Your task to perform on an android device: set the timer Image 0: 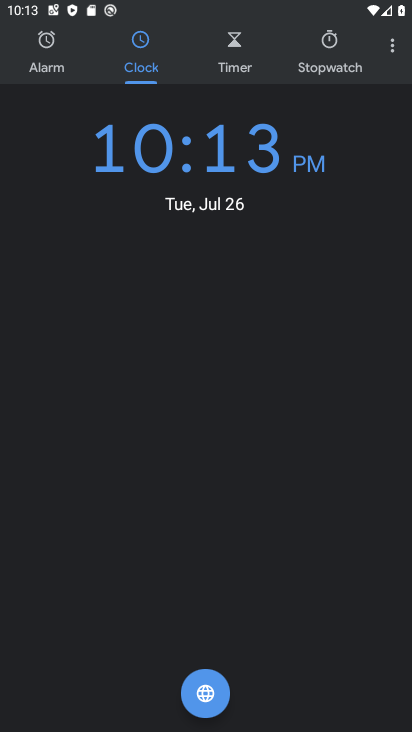
Step 0: press home button
Your task to perform on an android device: set the timer Image 1: 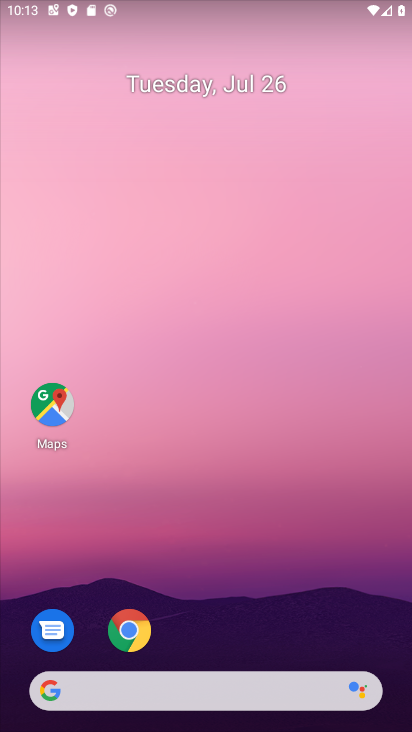
Step 1: drag from (154, 468) to (118, 109)
Your task to perform on an android device: set the timer Image 2: 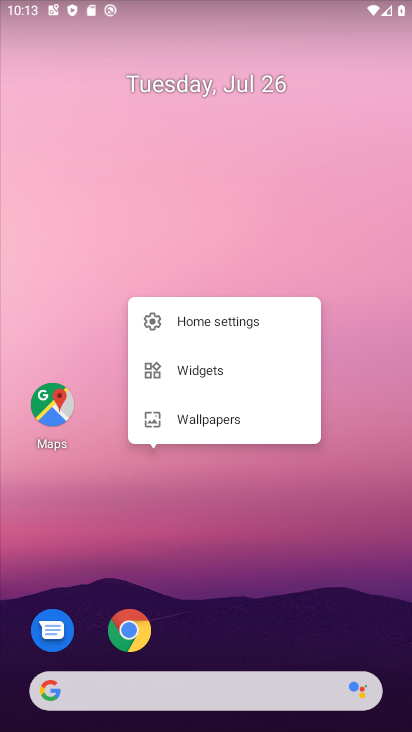
Step 2: drag from (200, 642) to (159, 51)
Your task to perform on an android device: set the timer Image 3: 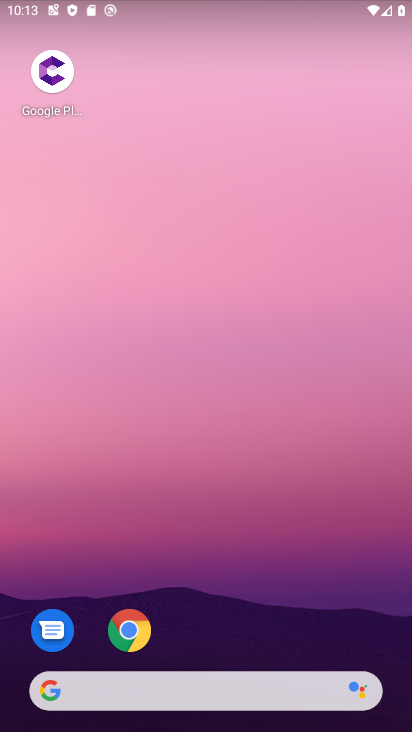
Step 3: drag from (190, 658) to (190, 261)
Your task to perform on an android device: set the timer Image 4: 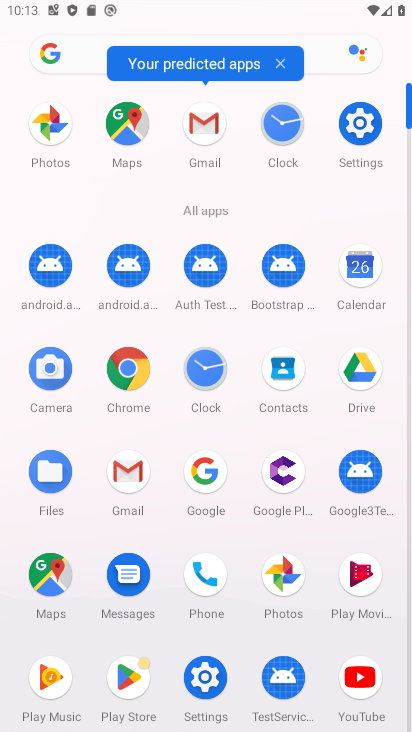
Step 4: click (211, 379)
Your task to perform on an android device: set the timer Image 5: 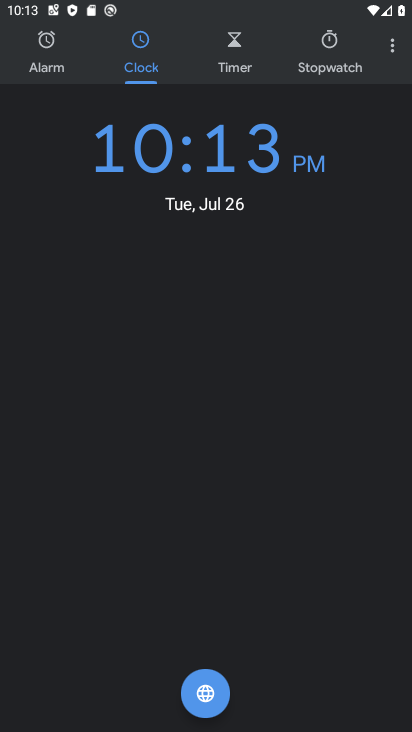
Step 5: click (233, 31)
Your task to perform on an android device: set the timer Image 6: 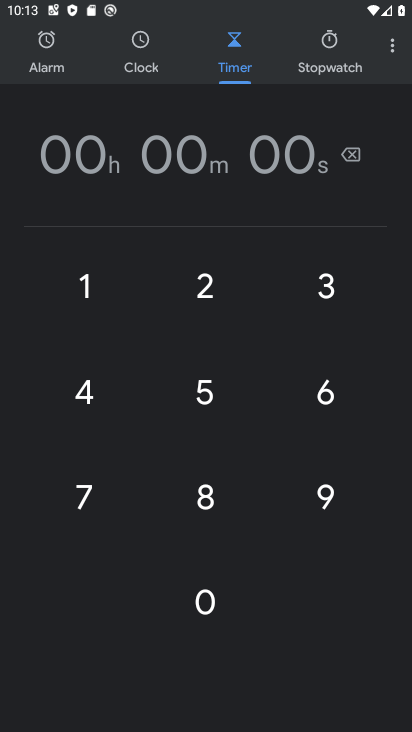
Step 6: click (94, 275)
Your task to perform on an android device: set the timer Image 7: 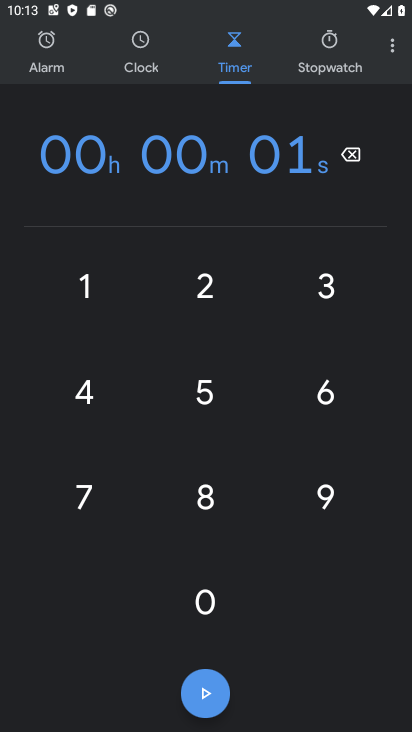
Step 7: click (207, 616)
Your task to perform on an android device: set the timer Image 8: 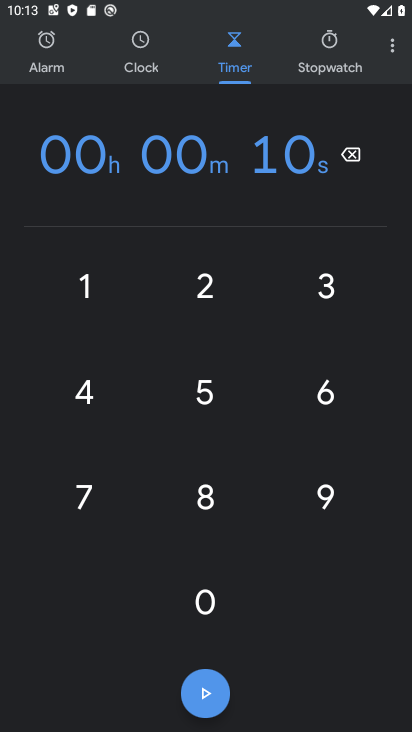
Step 8: click (207, 616)
Your task to perform on an android device: set the timer Image 9: 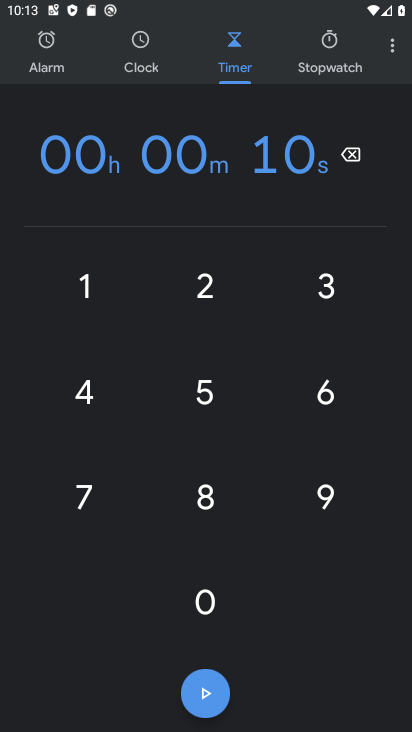
Step 9: click (207, 616)
Your task to perform on an android device: set the timer Image 10: 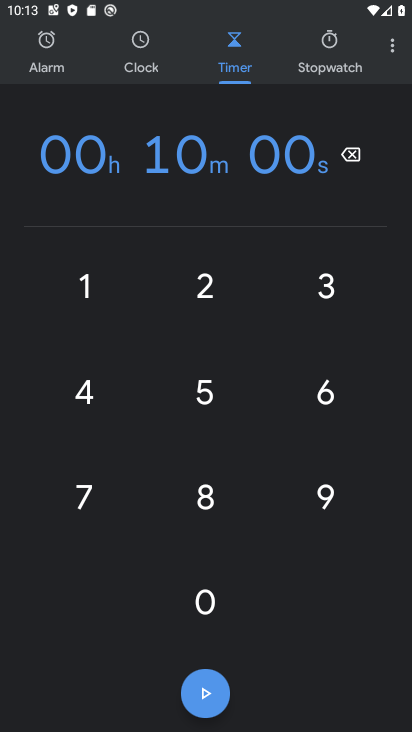
Step 10: click (204, 697)
Your task to perform on an android device: set the timer Image 11: 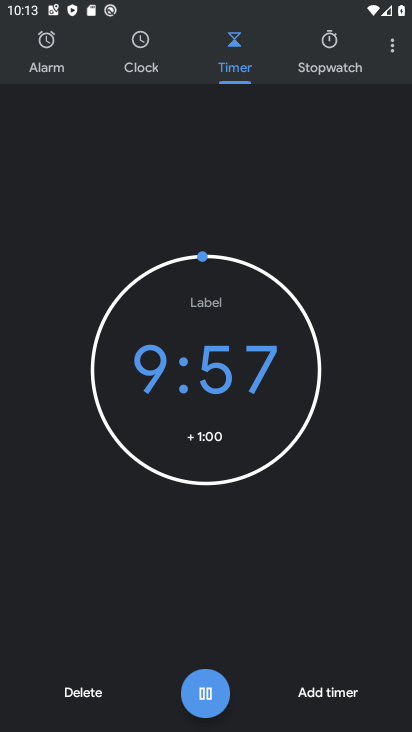
Step 11: click (339, 697)
Your task to perform on an android device: set the timer Image 12: 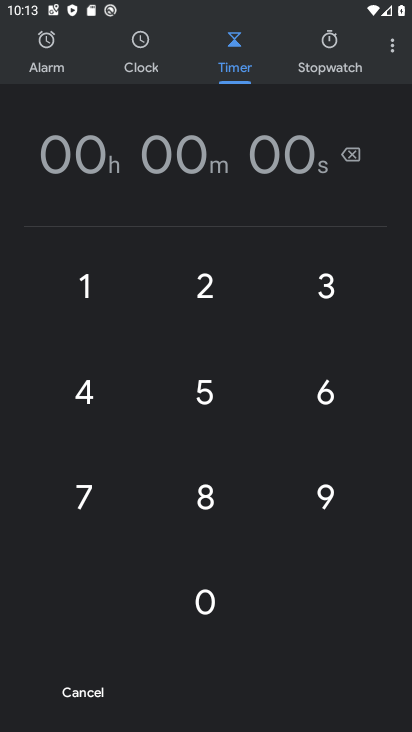
Step 12: task complete